Your task to perform on an android device: open app "PUBG MOBILE" (install if not already installed) Image 0: 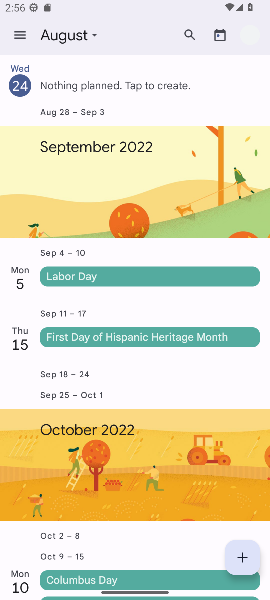
Step 0: press home button
Your task to perform on an android device: open app "PUBG MOBILE" (install if not already installed) Image 1: 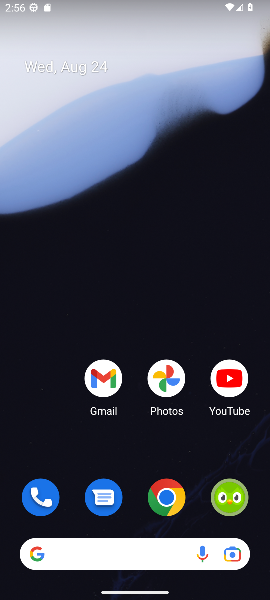
Step 1: drag from (116, 560) to (161, 155)
Your task to perform on an android device: open app "PUBG MOBILE" (install if not already installed) Image 2: 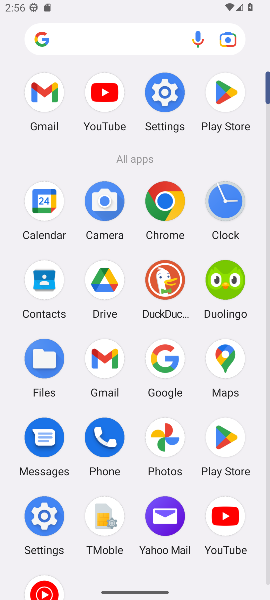
Step 2: click (225, 99)
Your task to perform on an android device: open app "PUBG MOBILE" (install if not already installed) Image 3: 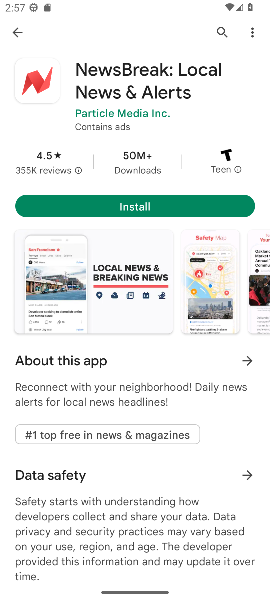
Step 3: press back button
Your task to perform on an android device: open app "PUBG MOBILE" (install if not already installed) Image 4: 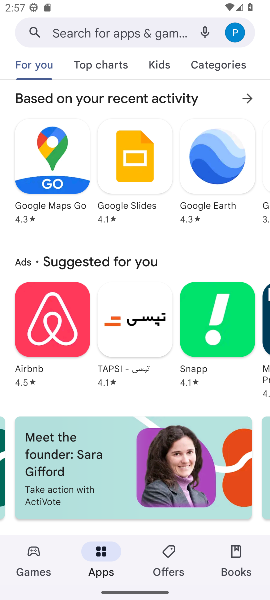
Step 4: click (109, 35)
Your task to perform on an android device: open app "PUBG MOBILE" (install if not already installed) Image 5: 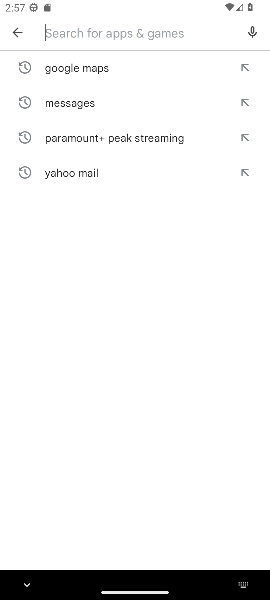
Step 5: type "PUBG MOBILE"
Your task to perform on an android device: open app "PUBG MOBILE" (install if not already installed) Image 6: 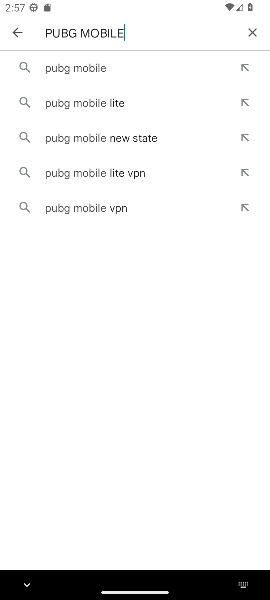
Step 6: click (98, 72)
Your task to perform on an android device: open app "PUBG MOBILE" (install if not already installed) Image 7: 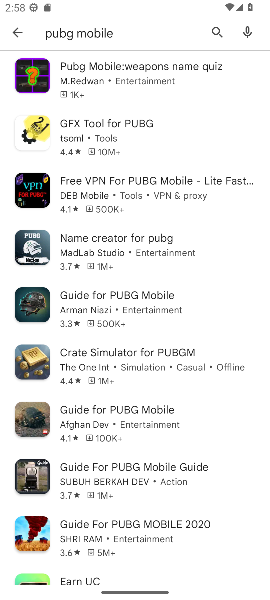
Step 7: task complete